Your task to perform on an android device: Show me recent news Image 0: 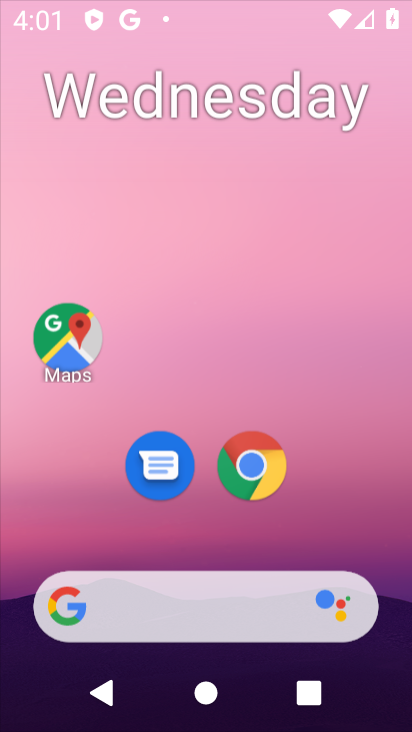
Step 0: click (269, 7)
Your task to perform on an android device: Show me recent news Image 1: 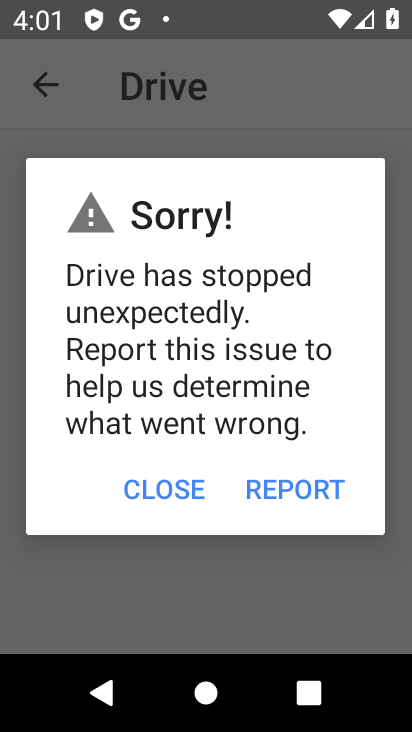
Step 1: press home button
Your task to perform on an android device: Show me recent news Image 2: 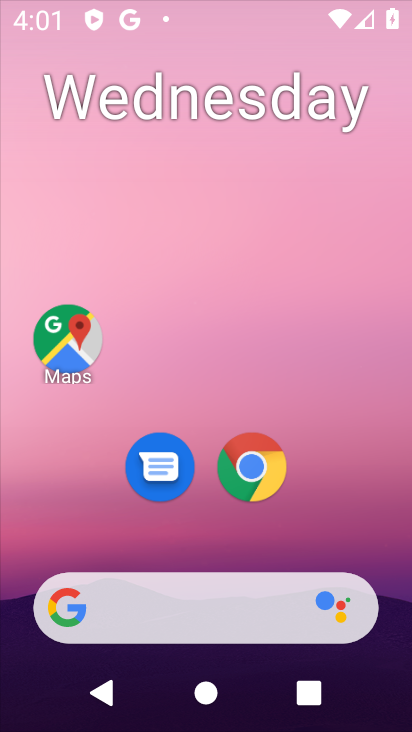
Step 2: click (211, 601)
Your task to perform on an android device: Show me recent news Image 3: 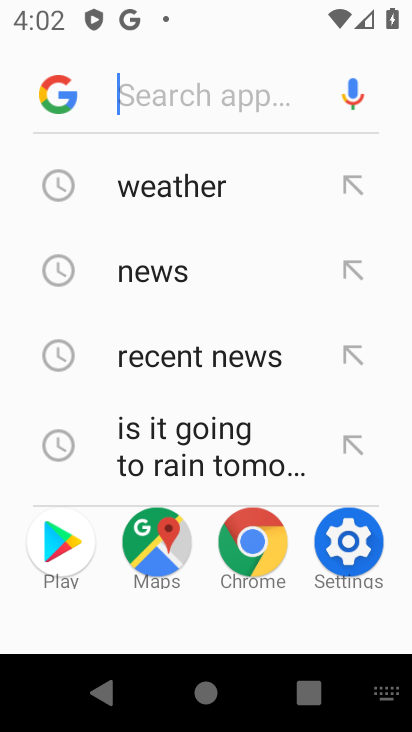
Step 3: type "recentnews"
Your task to perform on an android device: Show me recent news Image 4: 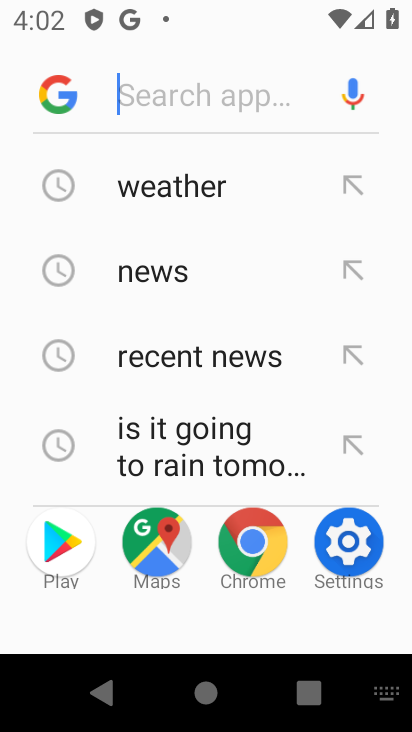
Step 4: click (164, 365)
Your task to perform on an android device: Show me recent news Image 5: 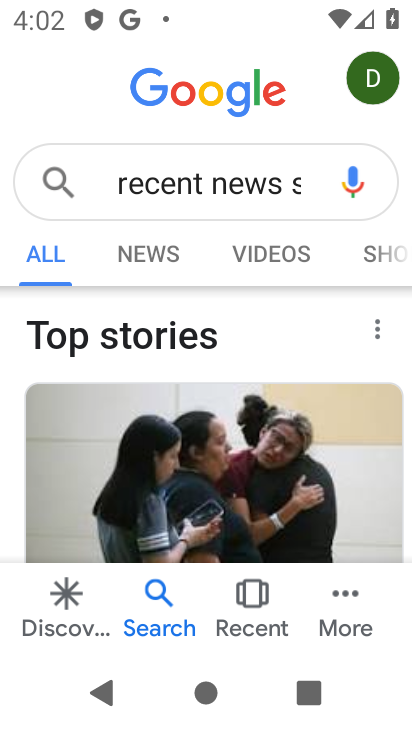
Step 5: task complete